Your task to perform on an android device: Find coffee shops on Maps Image 0: 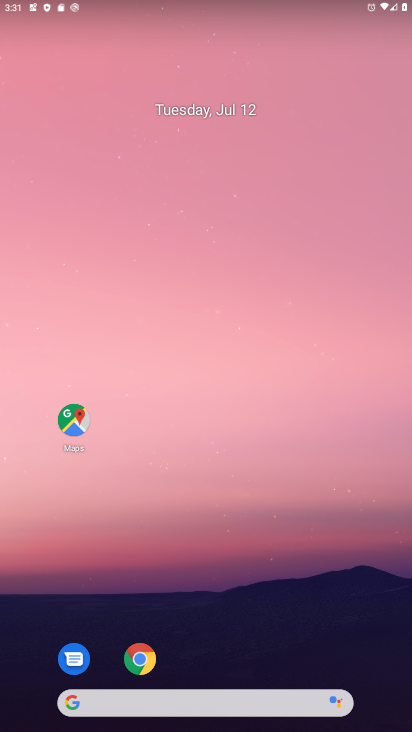
Step 0: drag from (209, 615) to (208, 146)
Your task to perform on an android device: Find coffee shops on Maps Image 1: 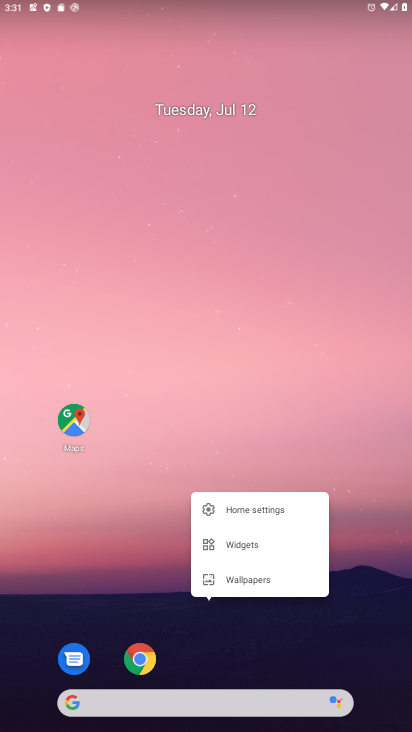
Step 1: click (64, 435)
Your task to perform on an android device: Find coffee shops on Maps Image 2: 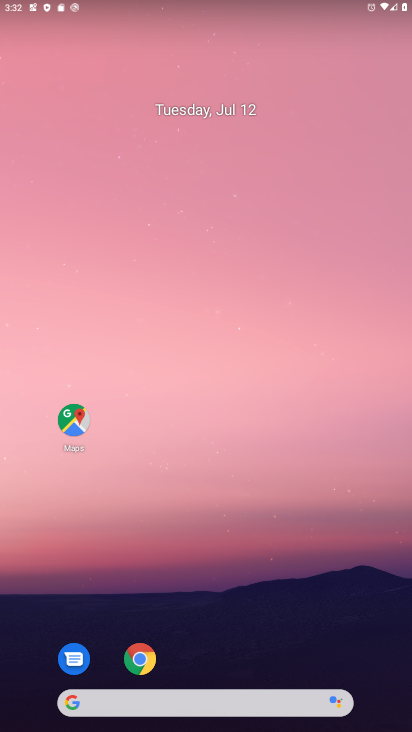
Step 2: click (65, 420)
Your task to perform on an android device: Find coffee shops on Maps Image 3: 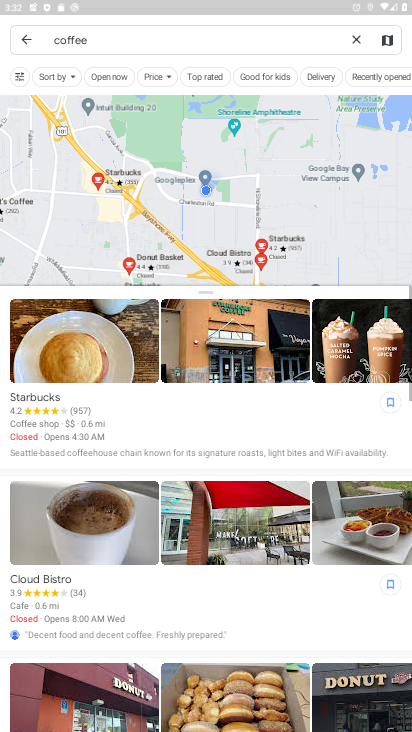
Step 3: click (186, 69)
Your task to perform on an android device: Find coffee shops on Maps Image 4: 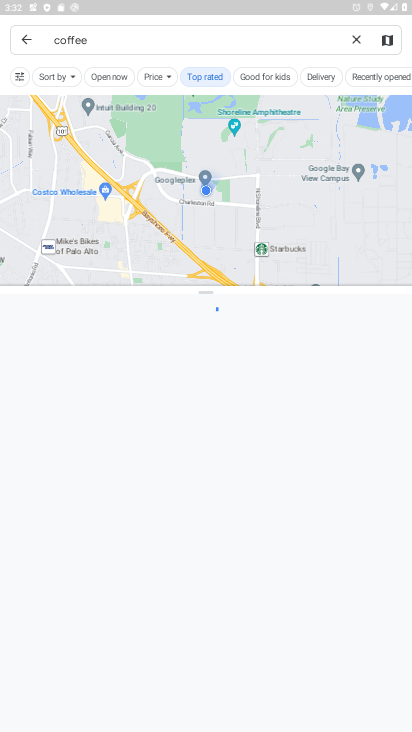
Step 4: click (190, 34)
Your task to perform on an android device: Find coffee shops on Maps Image 5: 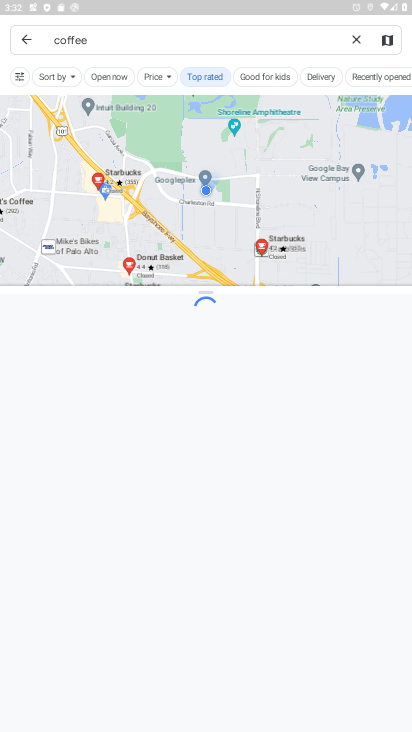
Step 5: click (190, 34)
Your task to perform on an android device: Find coffee shops on Maps Image 6: 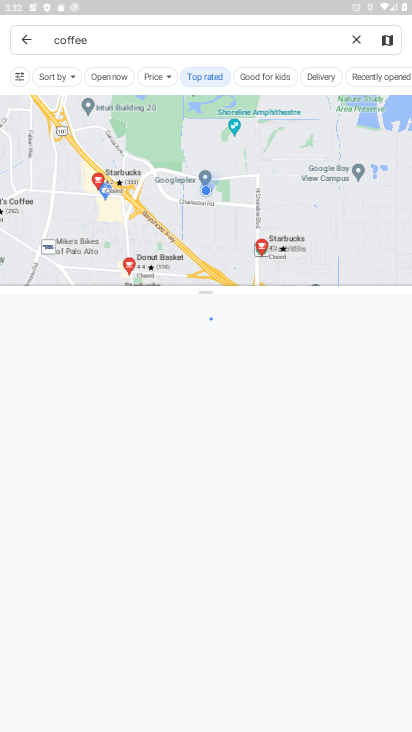
Step 6: click (190, 34)
Your task to perform on an android device: Find coffee shops on Maps Image 7: 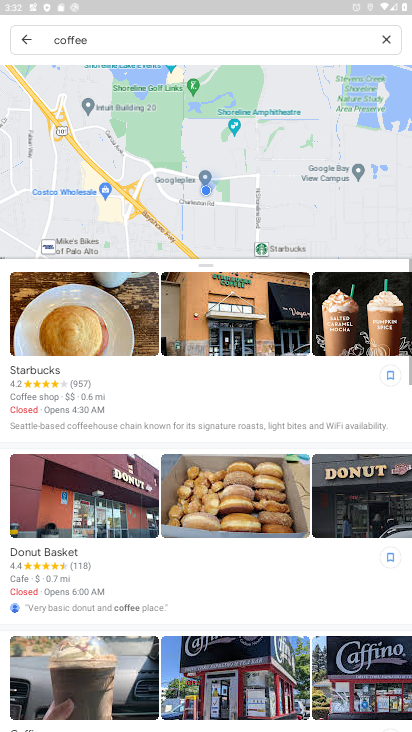
Step 7: click (169, 34)
Your task to perform on an android device: Find coffee shops on Maps Image 8: 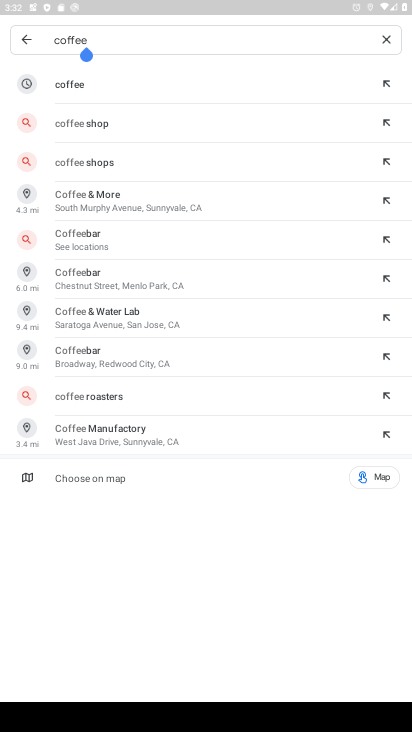
Step 8: click (148, 46)
Your task to perform on an android device: Find coffee shops on Maps Image 9: 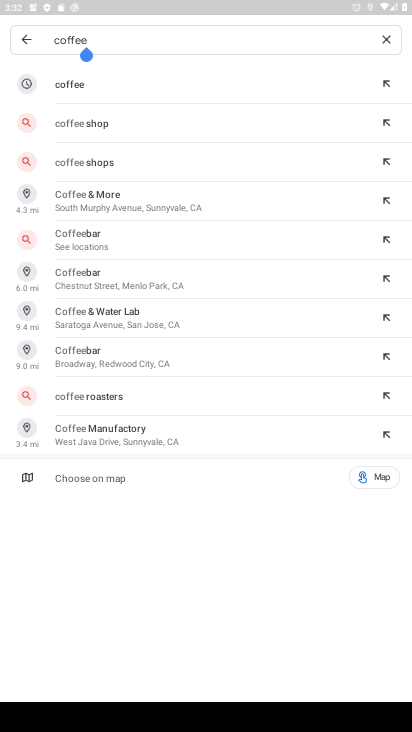
Step 9: click (148, 46)
Your task to perform on an android device: Find coffee shops on Maps Image 10: 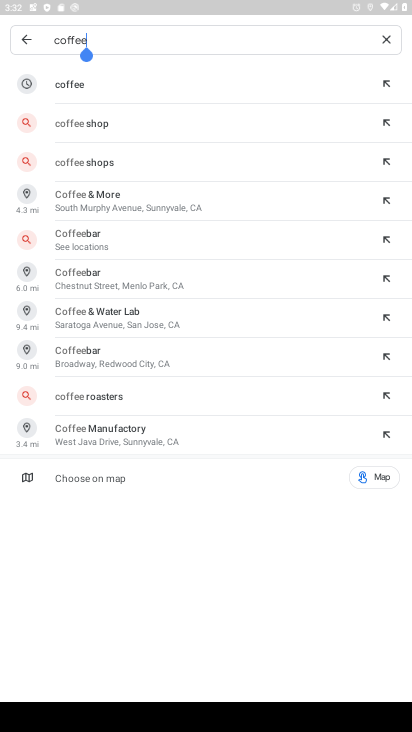
Step 10: click (106, 154)
Your task to perform on an android device: Find coffee shops on Maps Image 11: 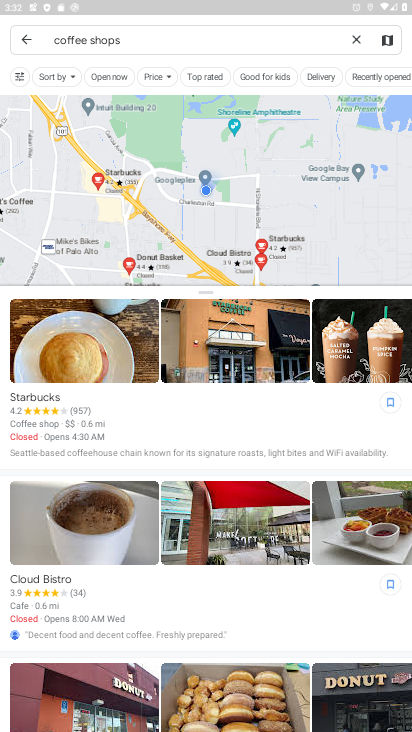
Step 11: task complete